Your task to perform on an android device: open chrome and create a bookmark for the current page Image 0: 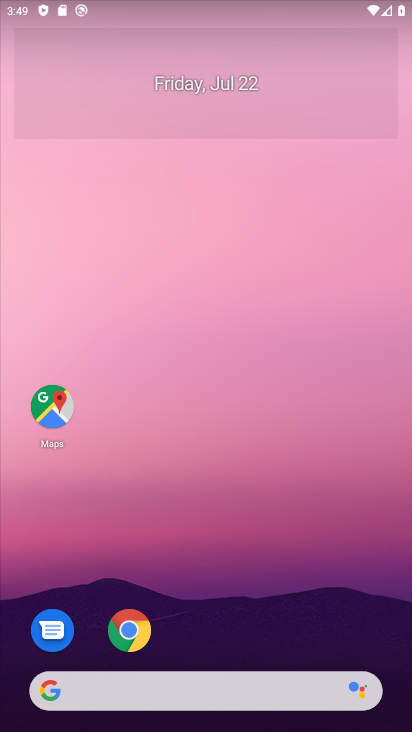
Step 0: click (126, 628)
Your task to perform on an android device: open chrome and create a bookmark for the current page Image 1: 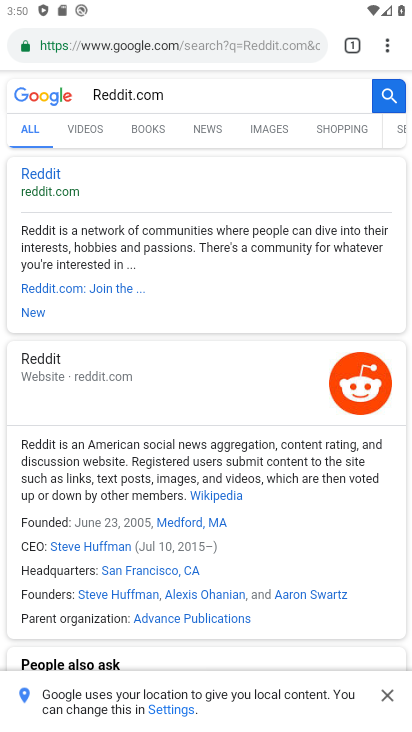
Step 1: click (382, 40)
Your task to perform on an android device: open chrome and create a bookmark for the current page Image 2: 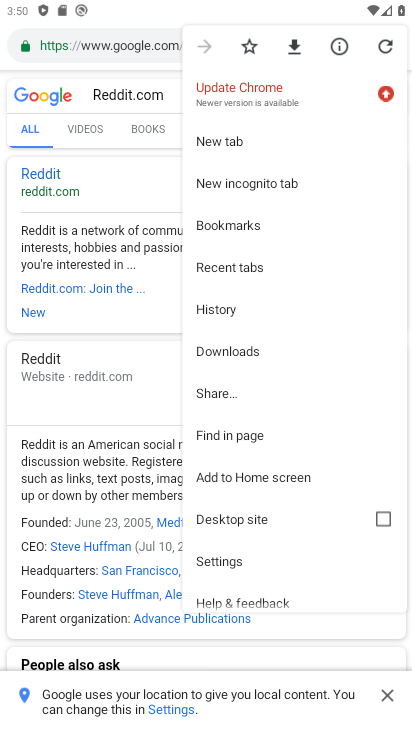
Step 2: click (252, 50)
Your task to perform on an android device: open chrome and create a bookmark for the current page Image 3: 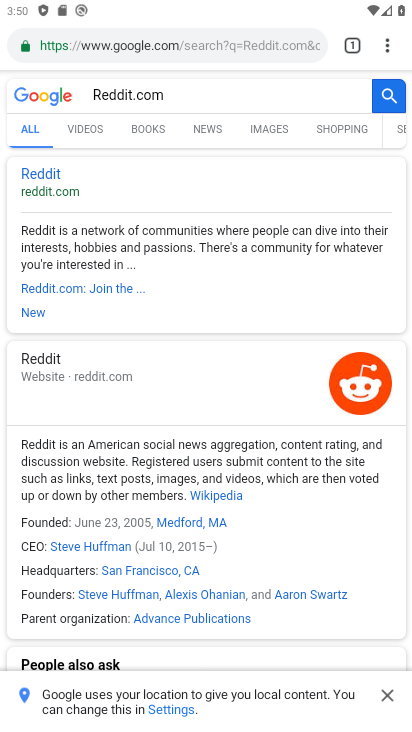
Step 3: task complete